Your task to perform on an android device: open a bookmark in the chrome app Image 0: 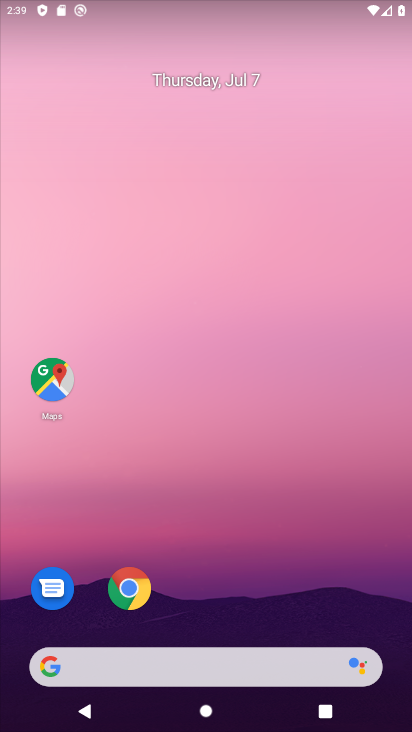
Step 0: click (128, 590)
Your task to perform on an android device: open a bookmark in the chrome app Image 1: 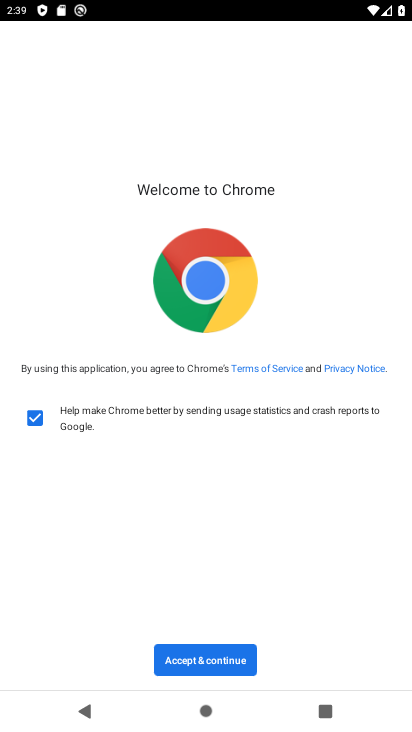
Step 1: click (205, 666)
Your task to perform on an android device: open a bookmark in the chrome app Image 2: 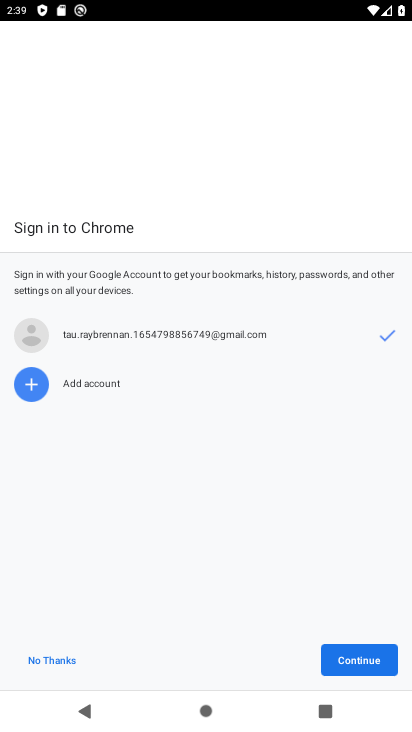
Step 2: click (317, 663)
Your task to perform on an android device: open a bookmark in the chrome app Image 3: 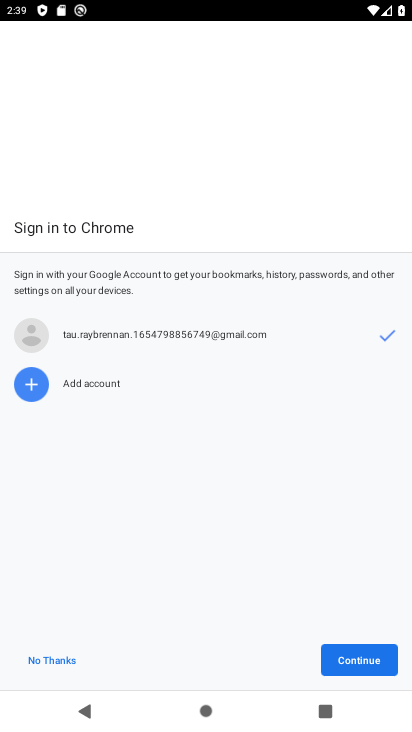
Step 3: click (348, 663)
Your task to perform on an android device: open a bookmark in the chrome app Image 4: 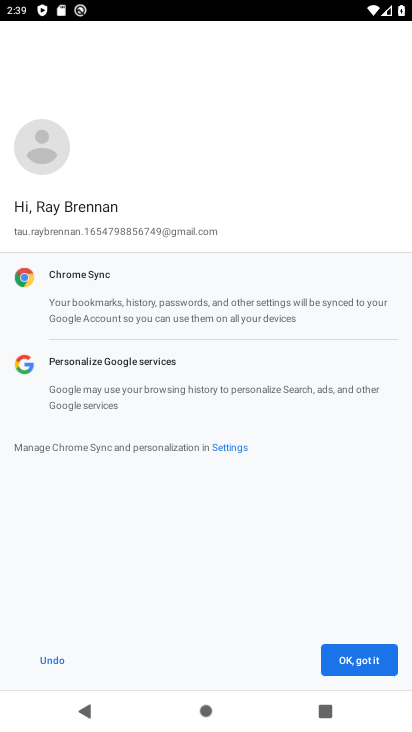
Step 4: click (348, 663)
Your task to perform on an android device: open a bookmark in the chrome app Image 5: 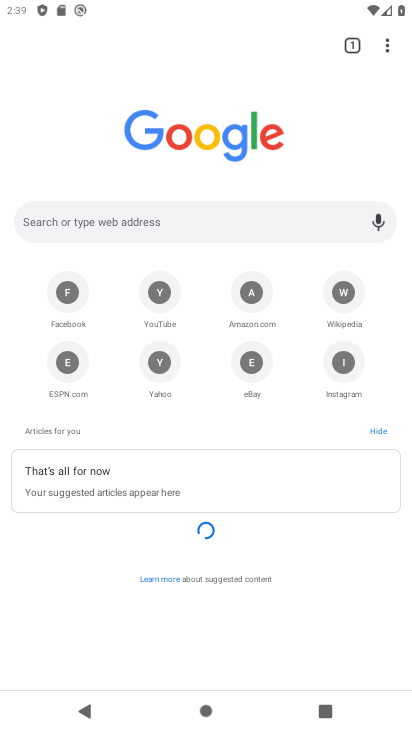
Step 5: click (386, 38)
Your task to perform on an android device: open a bookmark in the chrome app Image 6: 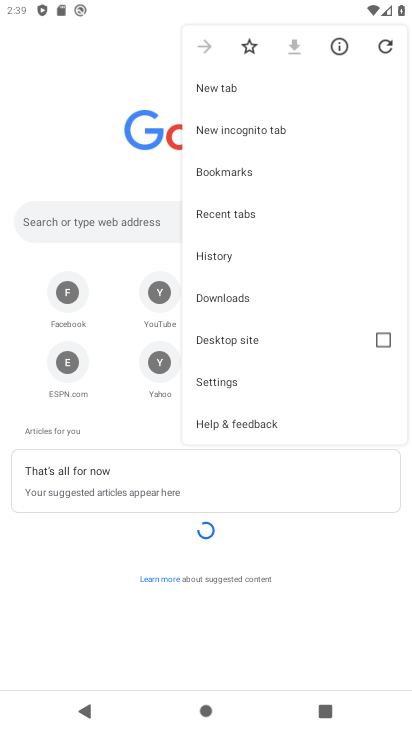
Step 6: click (226, 171)
Your task to perform on an android device: open a bookmark in the chrome app Image 7: 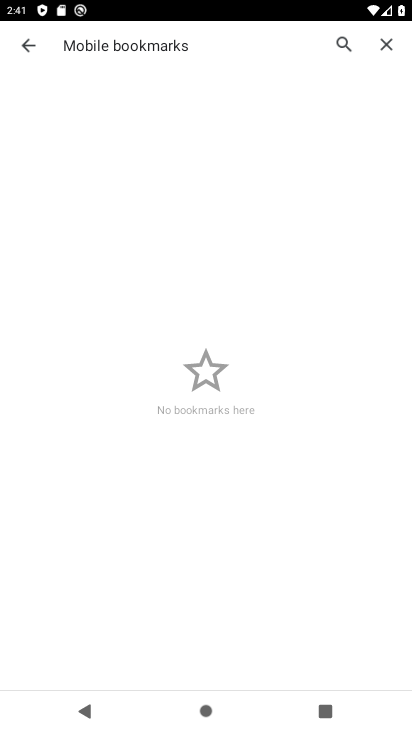
Step 7: task complete